Your task to perform on an android device: Open privacy settings Image 0: 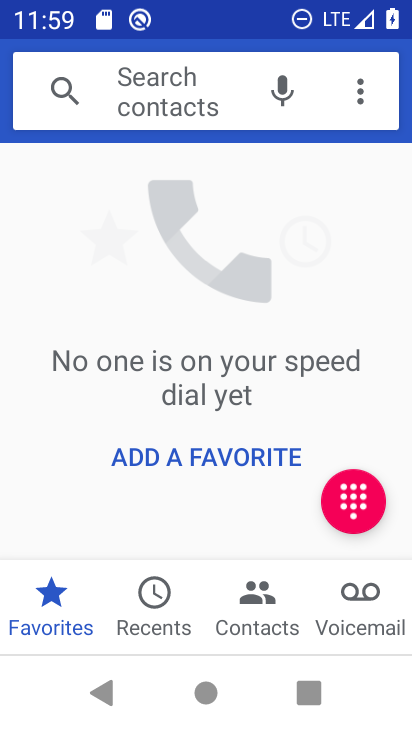
Step 0: press home button
Your task to perform on an android device: Open privacy settings Image 1: 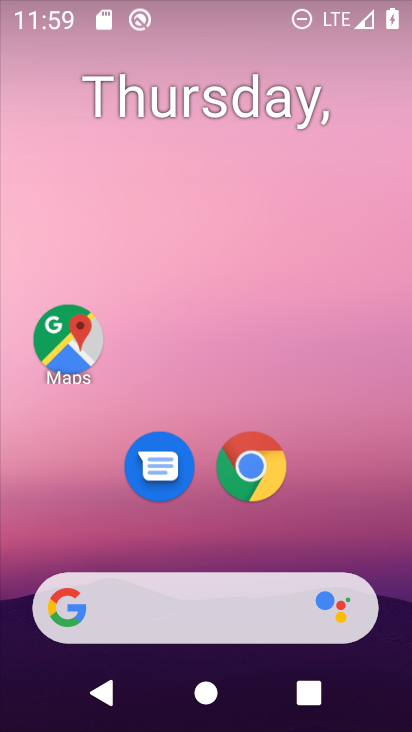
Step 1: drag from (302, 652) to (279, 117)
Your task to perform on an android device: Open privacy settings Image 2: 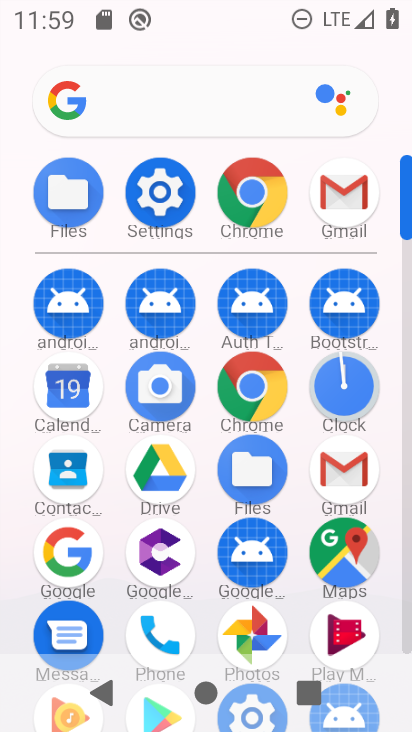
Step 2: click (181, 194)
Your task to perform on an android device: Open privacy settings Image 3: 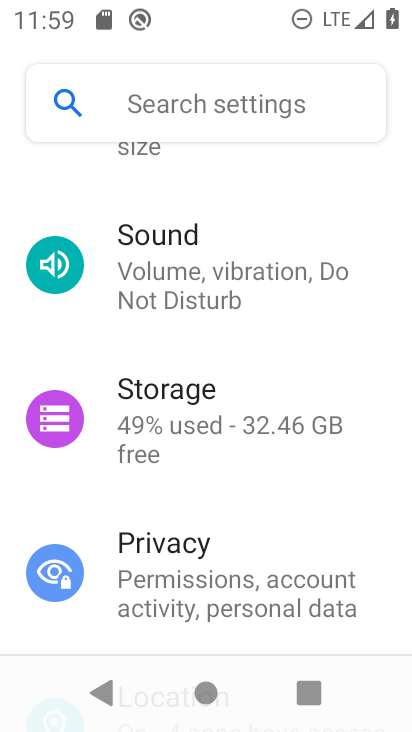
Step 3: click (224, 586)
Your task to perform on an android device: Open privacy settings Image 4: 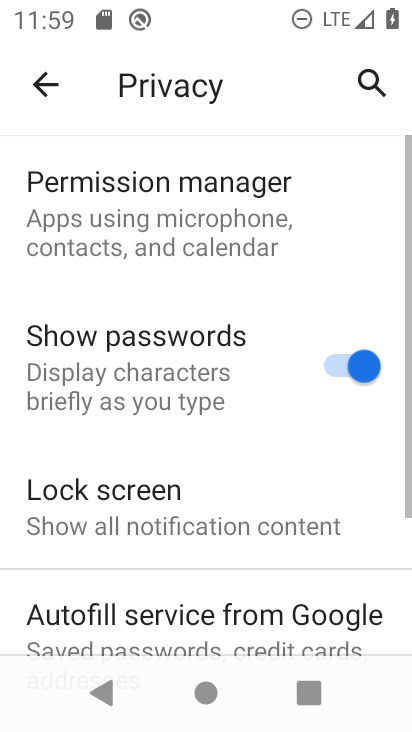
Step 4: task complete